Your task to perform on an android device: add a contact Image 0: 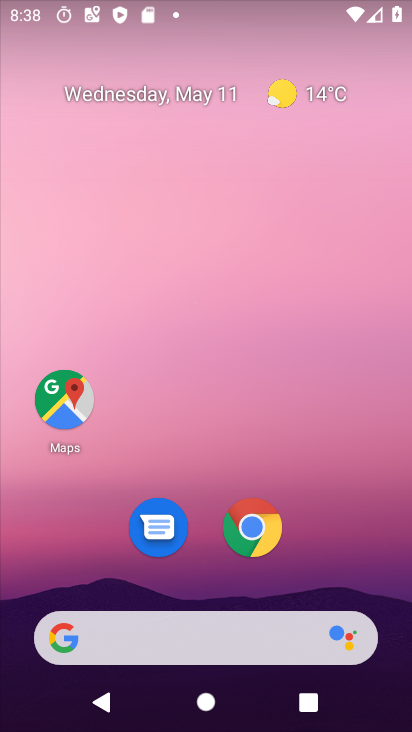
Step 0: drag from (289, 630) to (328, 169)
Your task to perform on an android device: add a contact Image 1: 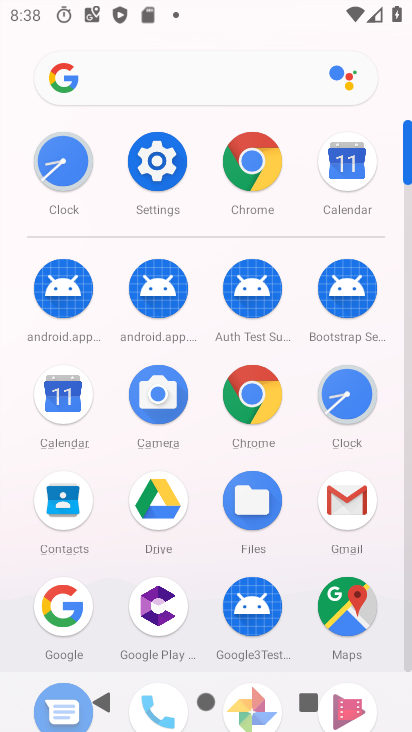
Step 1: drag from (236, 394) to (236, 319)
Your task to perform on an android device: add a contact Image 2: 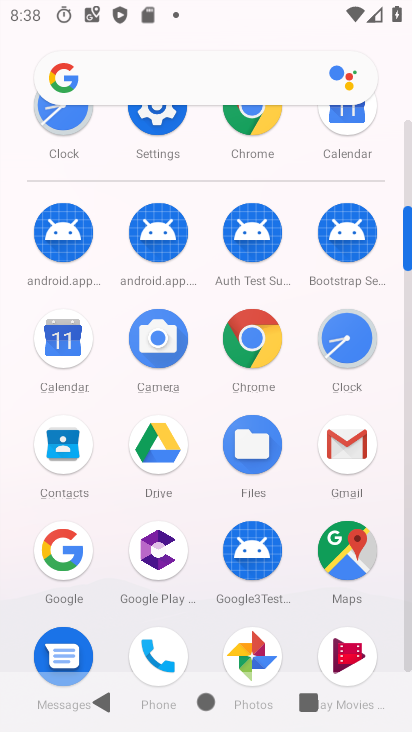
Step 2: click (74, 455)
Your task to perform on an android device: add a contact Image 3: 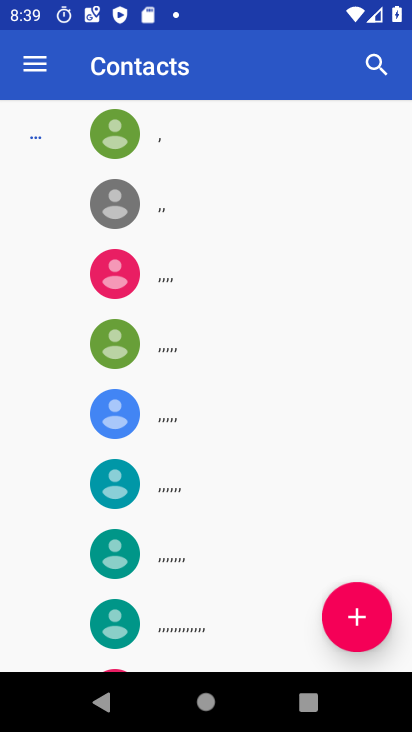
Step 3: click (368, 614)
Your task to perform on an android device: add a contact Image 4: 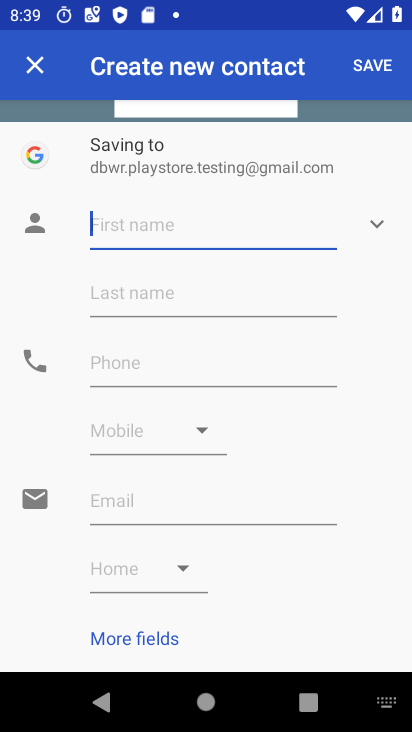
Step 4: type "kjgiuo"
Your task to perform on an android device: add a contact Image 5: 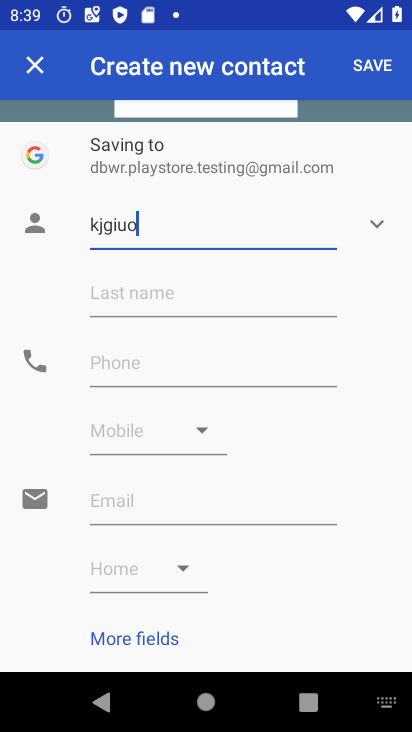
Step 5: click (233, 370)
Your task to perform on an android device: add a contact Image 6: 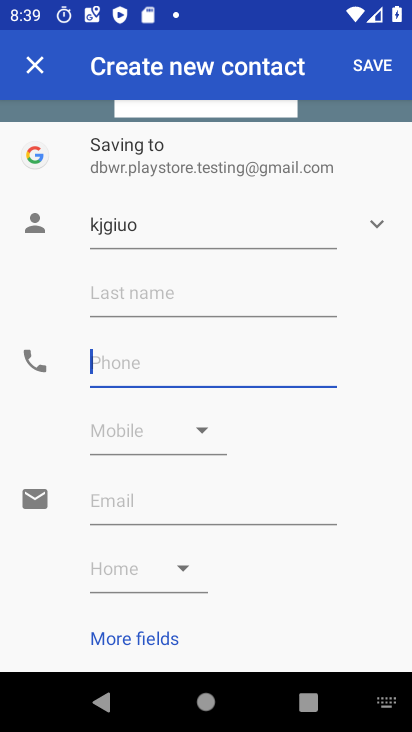
Step 6: type "97687579576"
Your task to perform on an android device: add a contact Image 7: 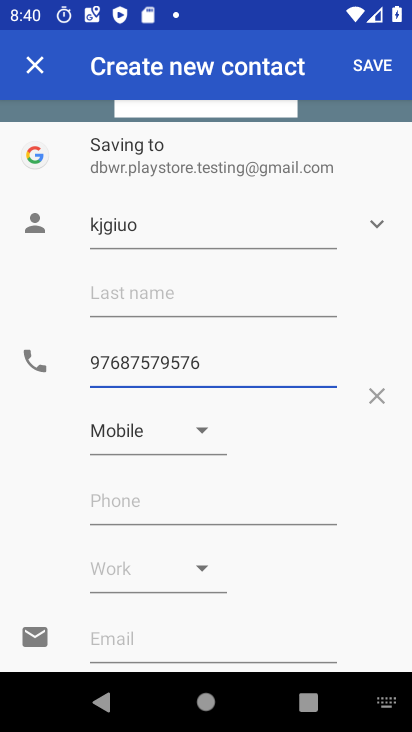
Step 7: click (370, 66)
Your task to perform on an android device: add a contact Image 8: 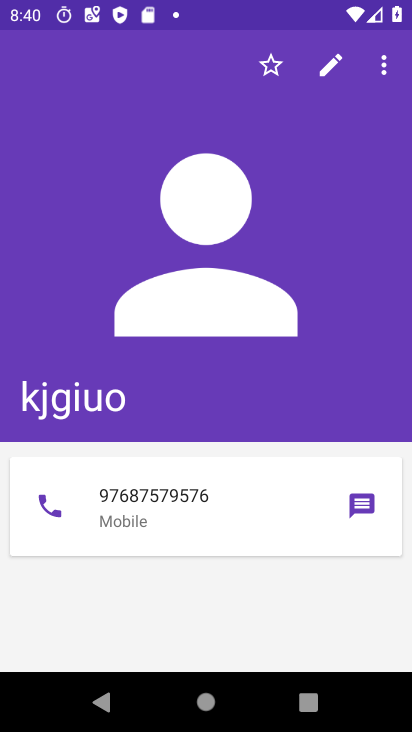
Step 8: task complete